Your task to perform on an android device: Search for "razer huntsman" on walmart, select the first entry, add it to the cart, then select checkout. Image 0: 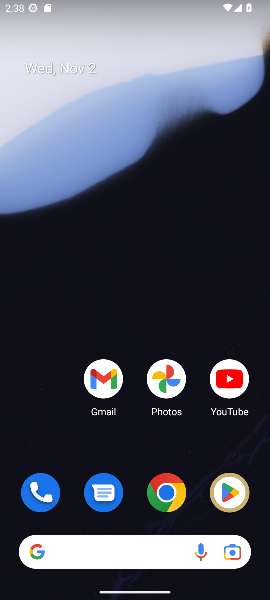
Step 0: click (166, 494)
Your task to perform on an android device: Search for "razer huntsman" on walmart, select the first entry, add it to the cart, then select checkout. Image 1: 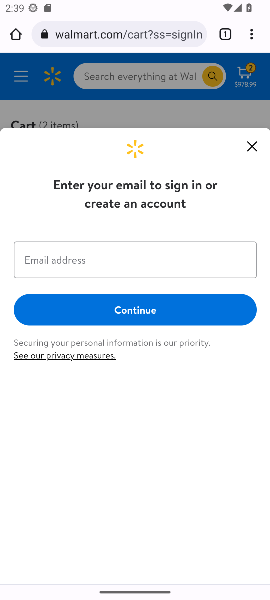
Step 1: click (247, 141)
Your task to perform on an android device: Search for "razer huntsman" on walmart, select the first entry, add it to the cart, then select checkout. Image 2: 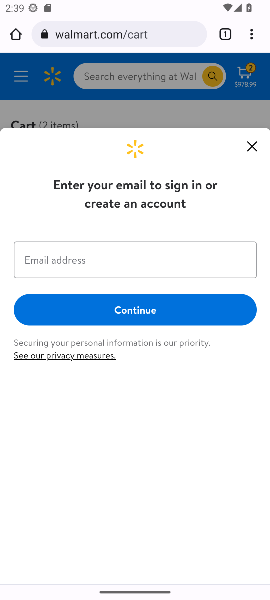
Step 2: click (250, 145)
Your task to perform on an android device: Search for "razer huntsman" on walmart, select the first entry, add it to the cart, then select checkout. Image 3: 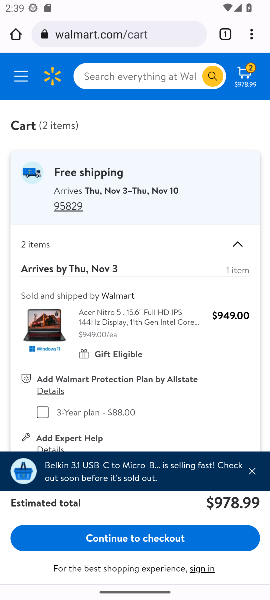
Step 3: click (119, 72)
Your task to perform on an android device: Search for "razer huntsman" on walmart, select the first entry, add it to the cart, then select checkout. Image 4: 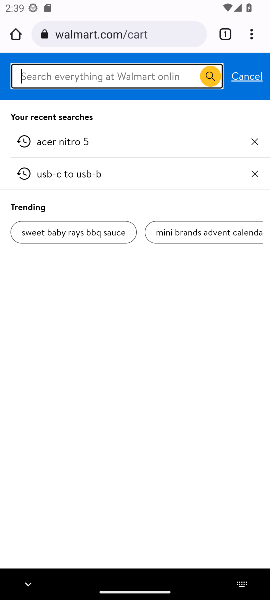
Step 4: type "razer huntsman"
Your task to perform on an android device: Search for "razer huntsman" on walmart, select the first entry, add it to the cart, then select checkout. Image 5: 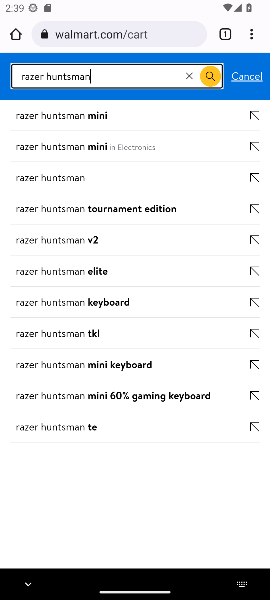
Step 5: click (53, 115)
Your task to perform on an android device: Search for "razer huntsman" on walmart, select the first entry, add it to the cart, then select checkout. Image 6: 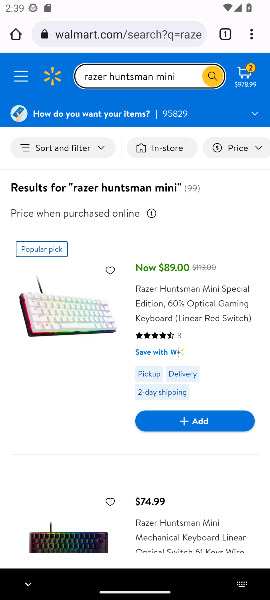
Step 6: click (184, 423)
Your task to perform on an android device: Search for "razer huntsman" on walmart, select the first entry, add it to the cart, then select checkout. Image 7: 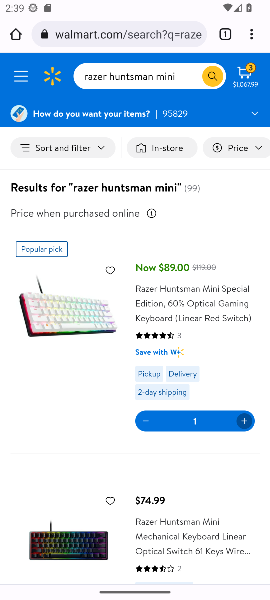
Step 7: click (245, 73)
Your task to perform on an android device: Search for "razer huntsman" on walmart, select the first entry, add it to the cart, then select checkout. Image 8: 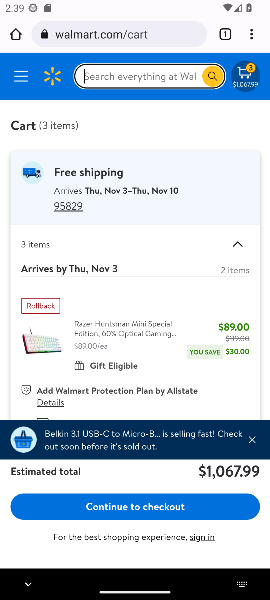
Step 8: click (130, 506)
Your task to perform on an android device: Search for "razer huntsman" on walmart, select the first entry, add it to the cart, then select checkout. Image 9: 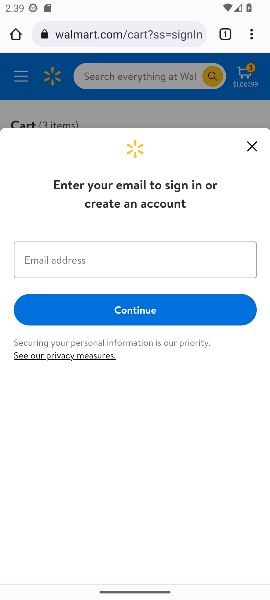
Step 9: task complete